Your task to perform on an android device: Go to accessibility settings Image 0: 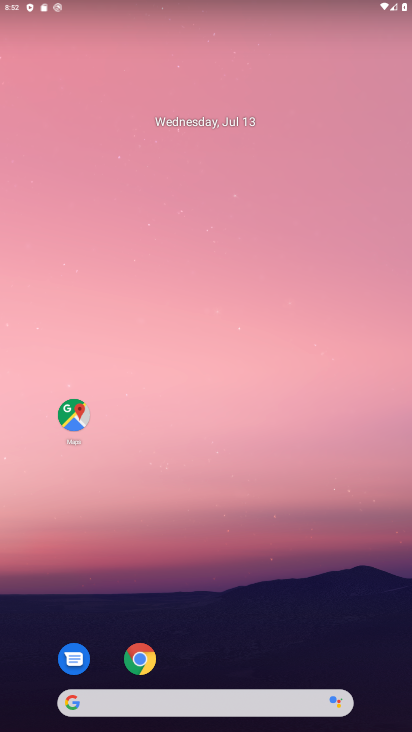
Step 0: drag from (385, 671) to (283, 96)
Your task to perform on an android device: Go to accessibility settings Image 1: 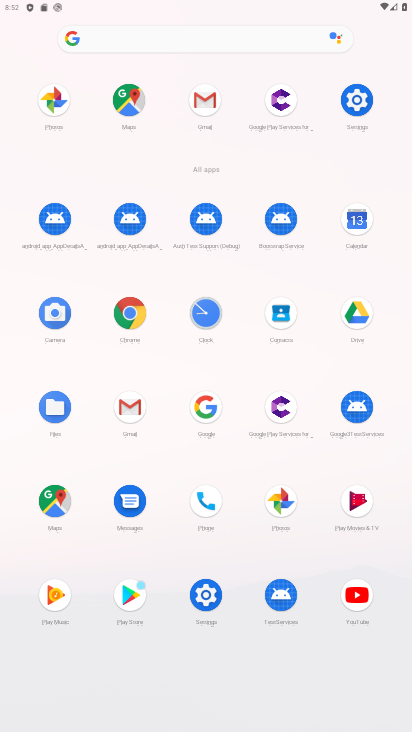
Step 1: click (205, 596)
Your task to perform on an android device: Go to accessibility settings Image 2: 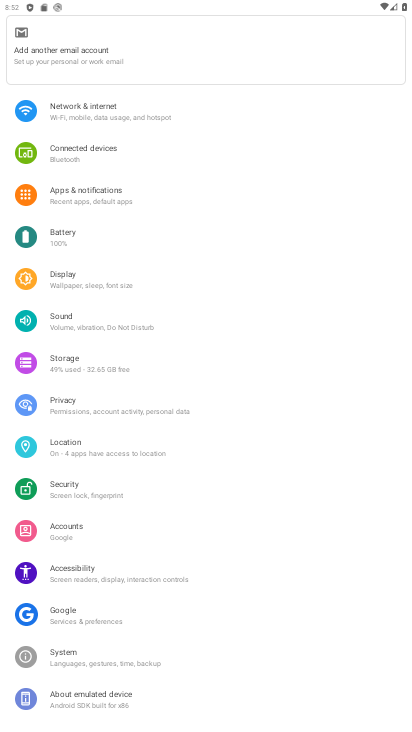
Step 2: click (53, 562)
Your task to perform on an android device: Go to accessibility settings Image 3: 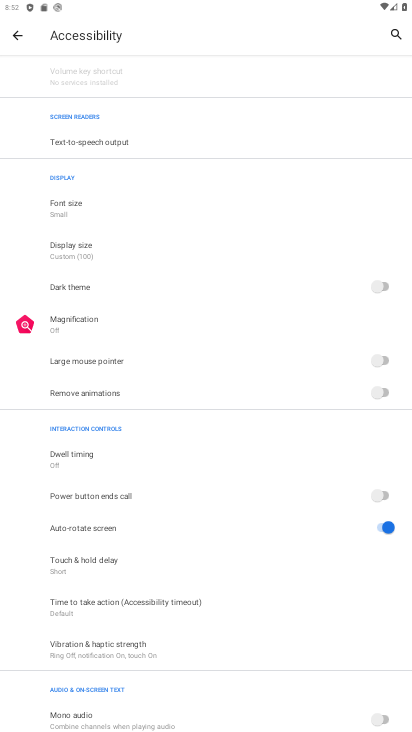
Step 3: task complete